Your task to perform on an android device: Go to network settings Image 0: 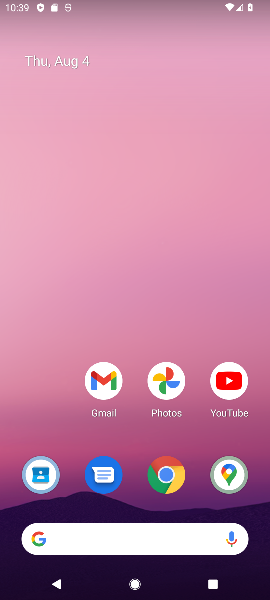
Step 0: drag from (193, 441) to (135, 173)
Your task to perform on an android device: Go to network settings Image 1: 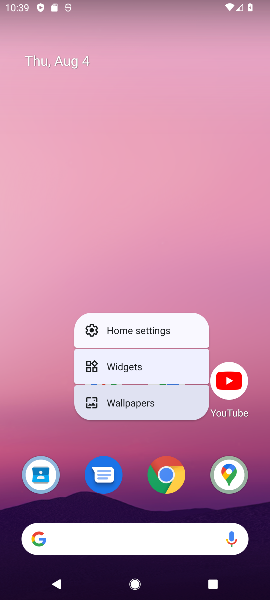
Step 1: click (225, 299)
Your task to perform on an android device: Go to network settings Image 2: 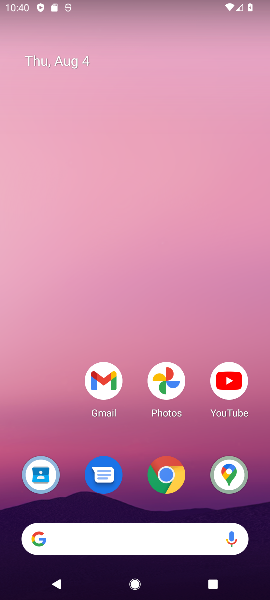
Step 2: drag from (141, 438) to (127, 148)
Your task to perform on an android device: Go to network settings Image 3: 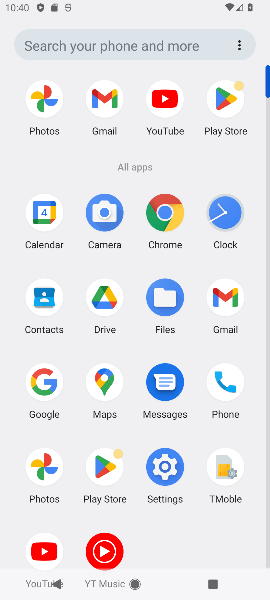
Step 3: click (159, 472)
Your task to perform on an android device: Go to network settings Image 4: 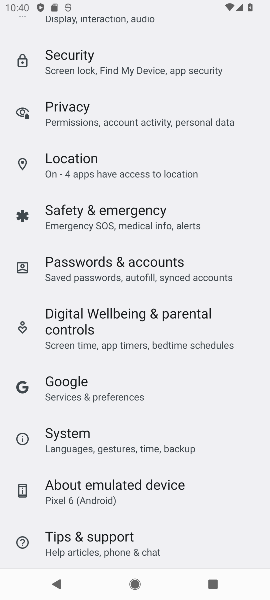
Step 4: drag from (125, 198) to (125, 502)
Your task to perform on an android device: Go to network settings Image 5: 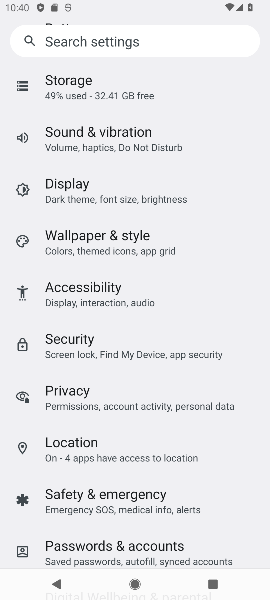
Step 5: drag from (127, 256) to (119, 415)
Your task to perform on an android device: Go to network settings Image 6: 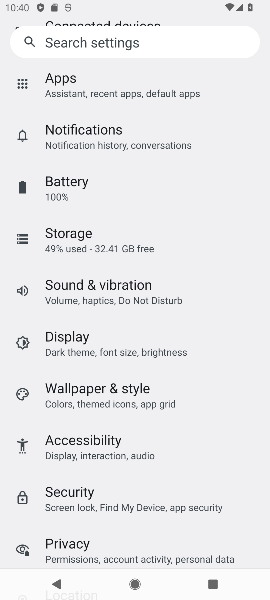
Step 6: drag from (128, 174) to (151, 507)
Your task to perform on an android device: Go to network settings Image 7: 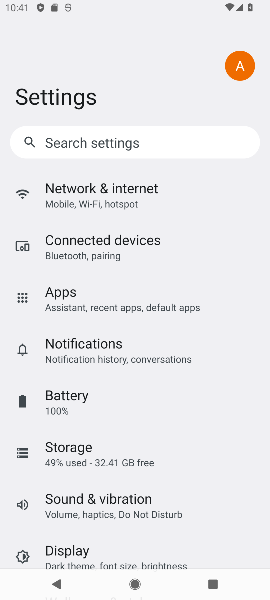
Step 7: click (100, 186)
Your task to perform on an android device: Go to network settings Image 8: 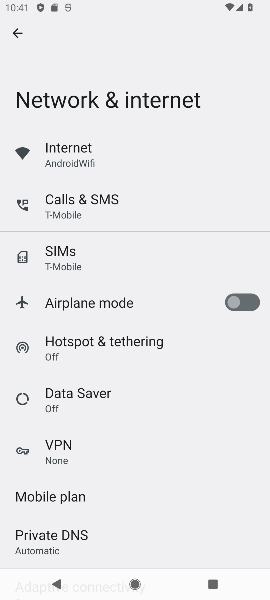
Step 8: task complete